Your task to perform on an android device: find snoozed emails in the gmail app Image 0: 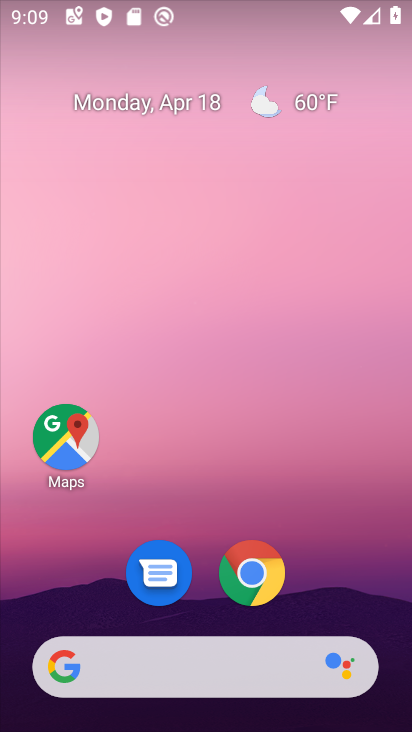
Step 0: drag from (214, 726) to (222, 198)
Your task to perform on an android device: find snoozed emails in the gmail app Image 1: 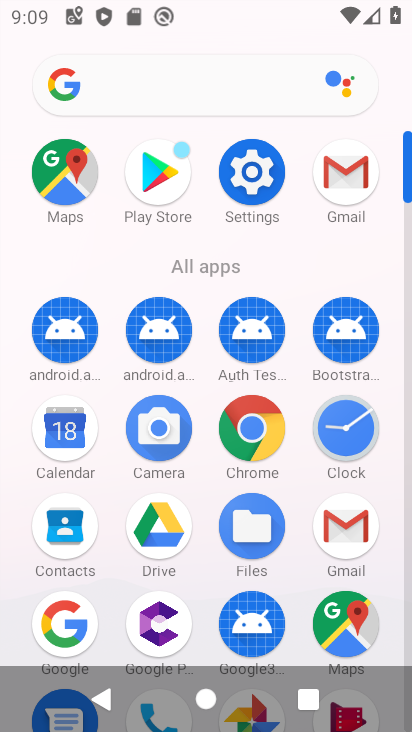
Step 1: click (342, 175)
Your task to perform on an android device: find snoozed emails in the gmail app Image 2: 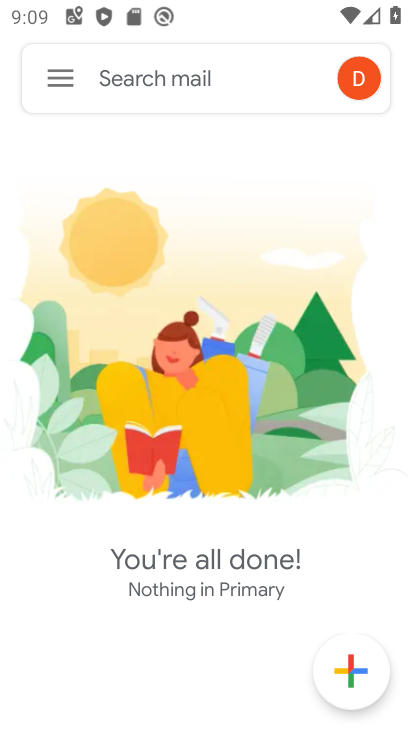
Step 2: click (64, 79)
Your task to perform on an android device: find snoozed emails in the gmail app Image 3: 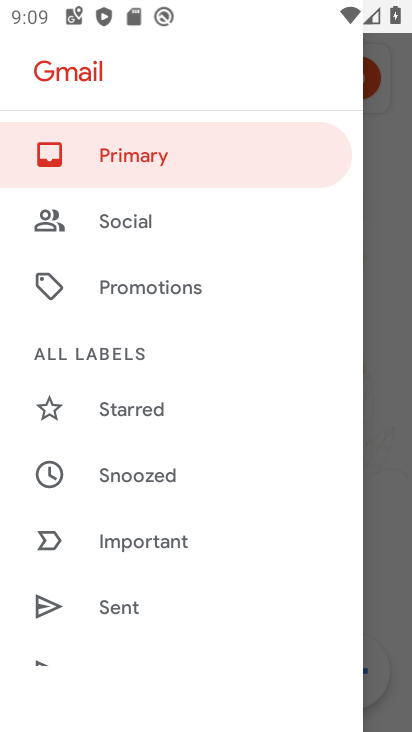
Step 3: click (133, 477)
Your task to perform on an android device: find snoozed emails in the gmail app Image 4: 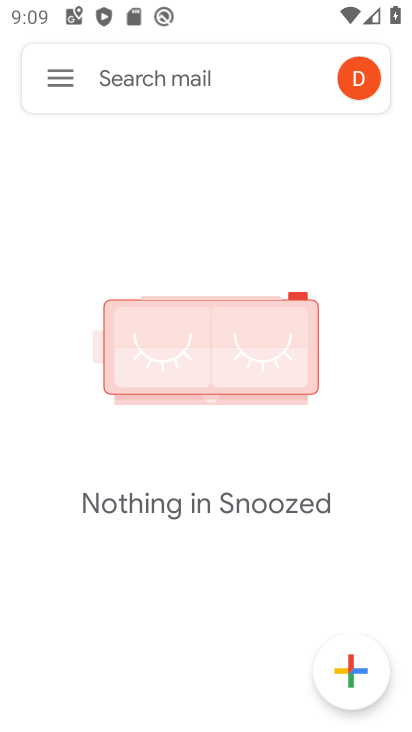
Step 4: task complete